Your task to perform on an android device: Go to network settings Image 0: 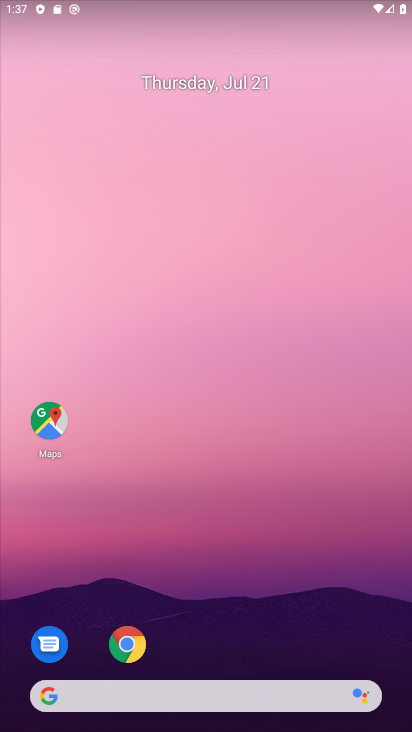
Step 0: drag from (261, 609) to (280, 65)
Your task to perform on an android device: Go to network settings Image 1: 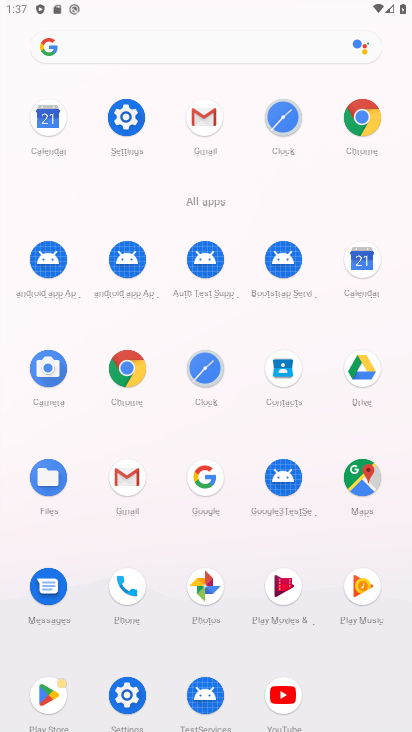
Step 1: click (138, 116)
Your task to perform on an android device: Go to network settings Image 2: 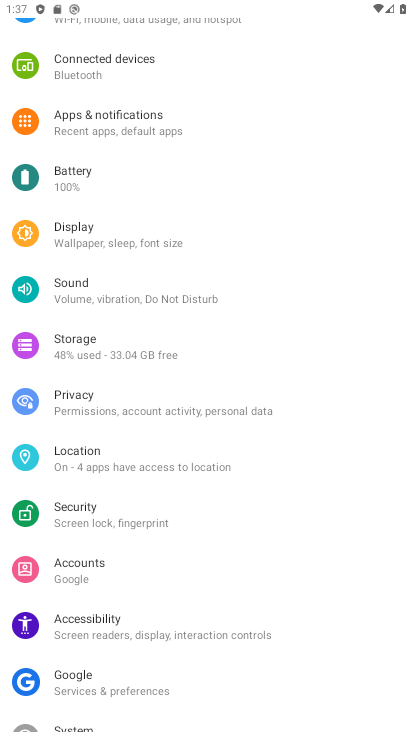
Step 2: click (120, 26)
Your task to perform on an android device: Go to network settings Image 3: 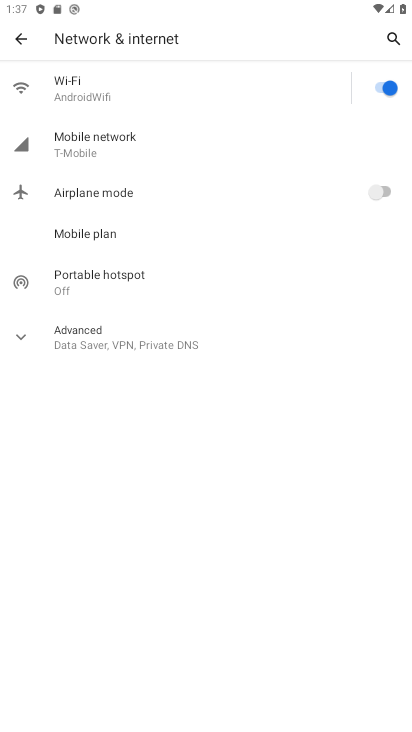
Step 3: click (117, 147)
Your task to perform on an android device: Go to network settings Image 4: 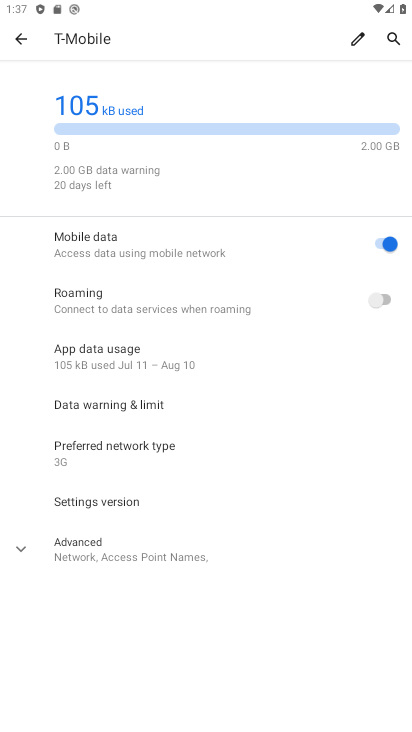
Step 4: task complete